Your task to perform on an android device: Open Chrome and go to settings Image 0: 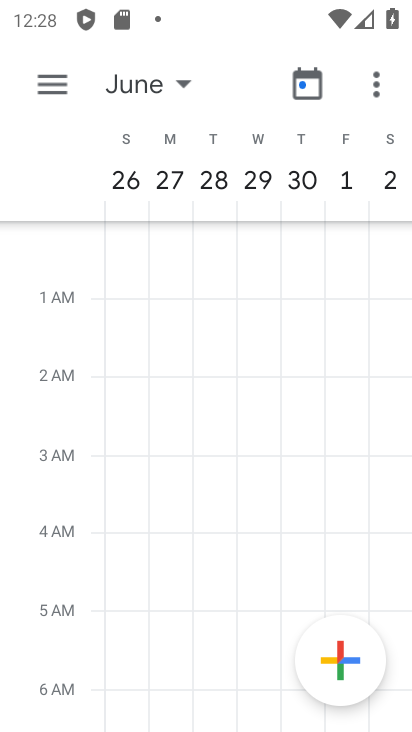
Step 0: press home button
Your task to perform on an android device: Open Chrome and go to settings Image 1: 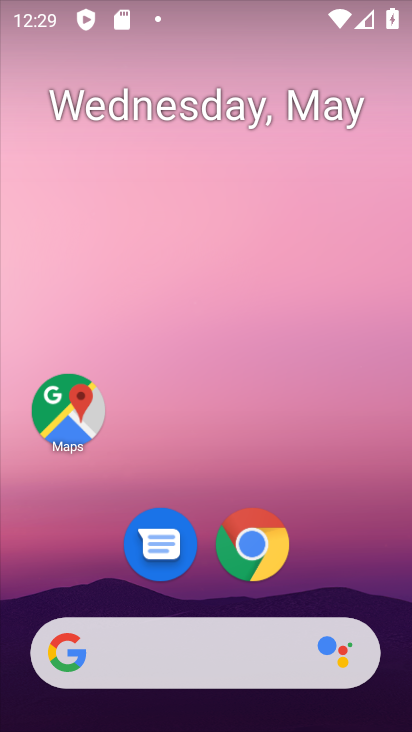
Step 1: click (261, 545)
Your task to perform on an android device: Open Chrome and go to settings Image 2: 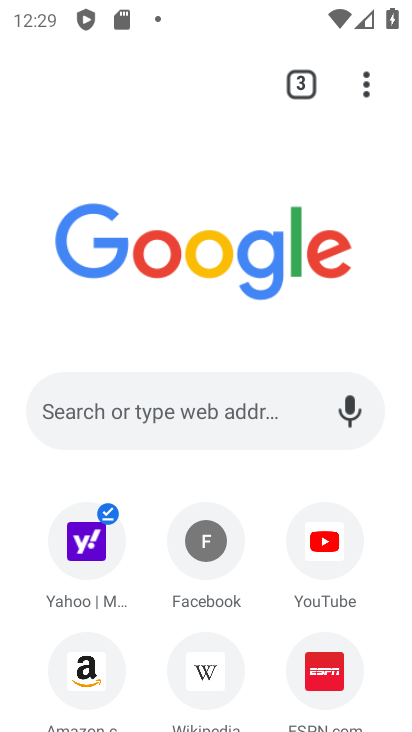
Step 2: task complete